Your task to perform on an android device: Go to sound settings Image 0: 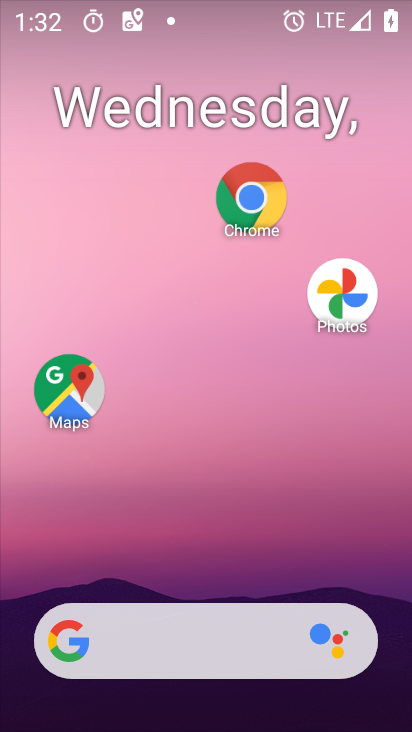
Step 0: drag from (208, 658) to (301, 126)
Your task to perform on an android device: Go to sound settings Image 1: 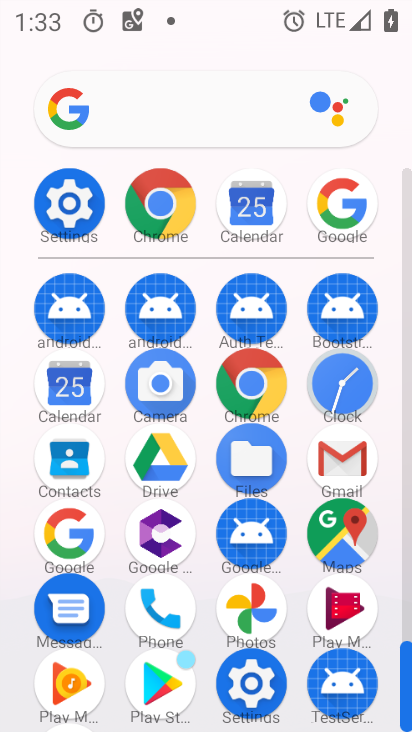
Step 1: click (81, 208)
Your task to perform on an android device: Go to sound settings Image 2: 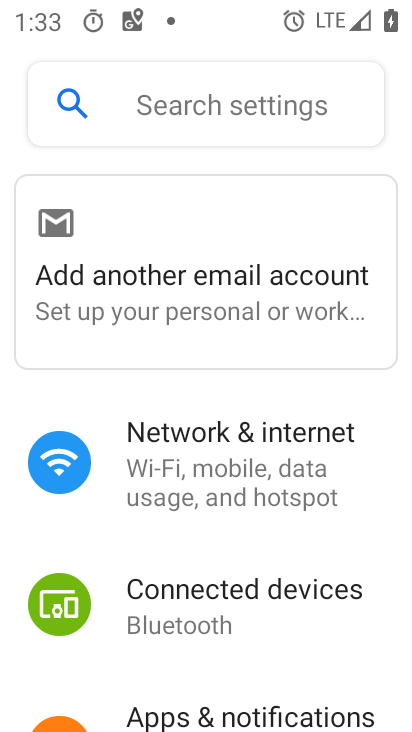
Step 2: drag from (173, 613) to (236, 163)
Your task to perform on an android device: Go to sound settings Image 3: 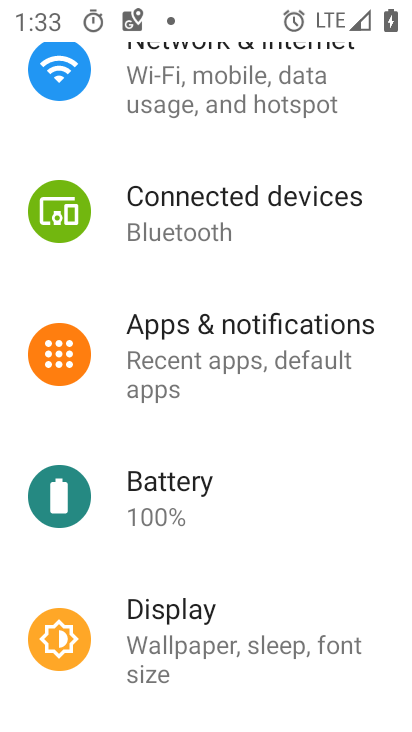
Step 3: drag from (248, 571) to (285, 262)
Your task to perform on an android device: Go to sound settings Image 4: 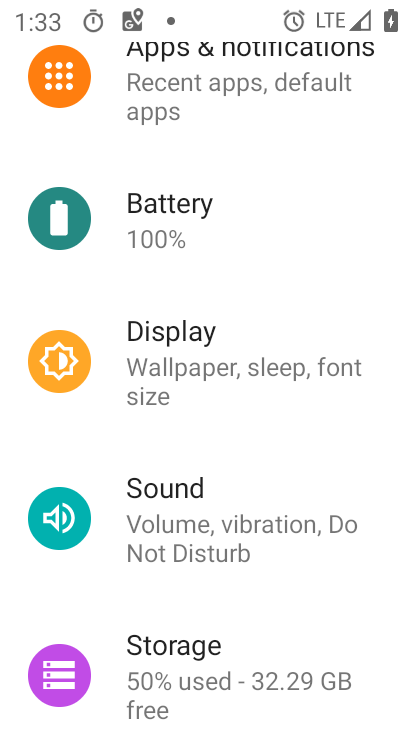
Step 4: click (233, 537)
Your task to perform on an android device: Go to sound settings Image 5: 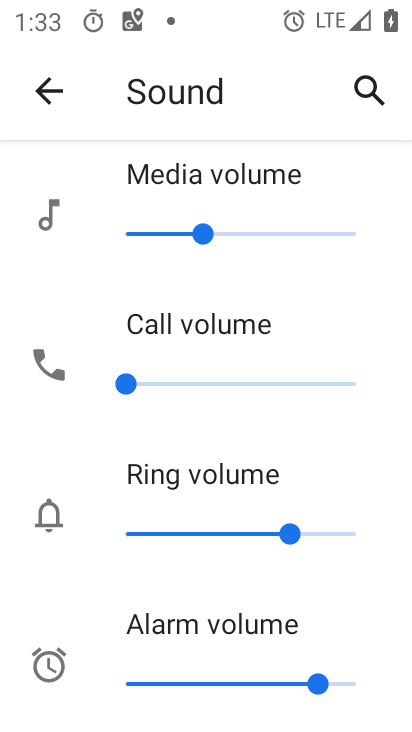
Step 5: task complete